Your task to perform on an android device: Open eBay Image 0: 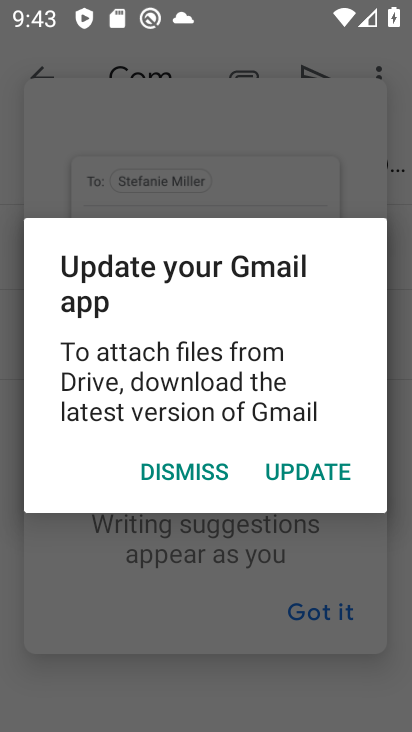
Step 0: press home button
Your task to perform on an android device: Open eBay Image 1: 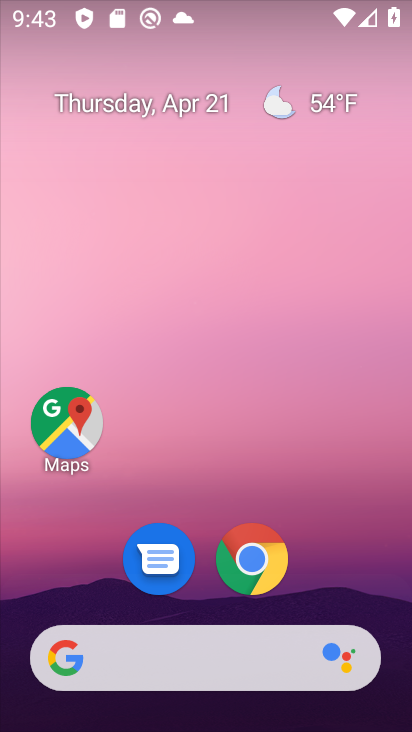
Step 1: click (254, 566)
Your task to perform on an android device: Open eBay Image 2: 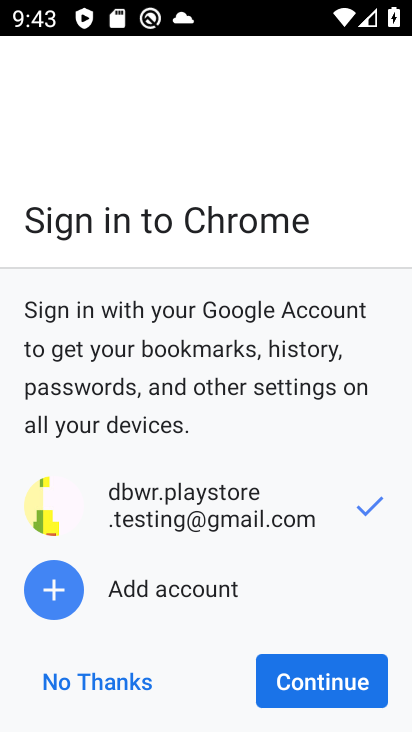
Step 2: click (327, 674)
Your task to perform on an android device: Open eBay Image 3: 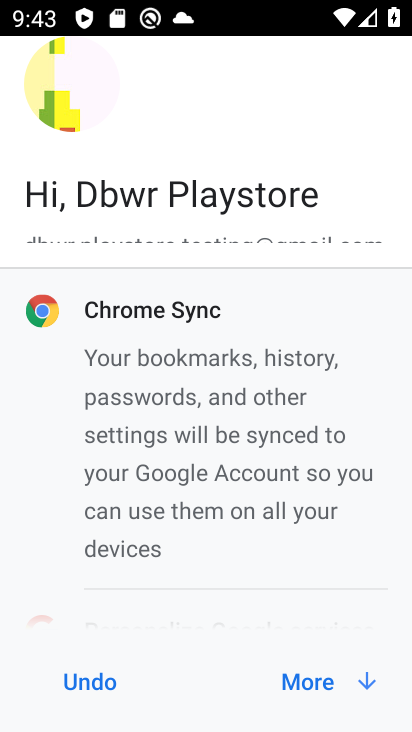
Step 3: click (330, 686)
Your task to perform on an android device: Open eBay Image 4: 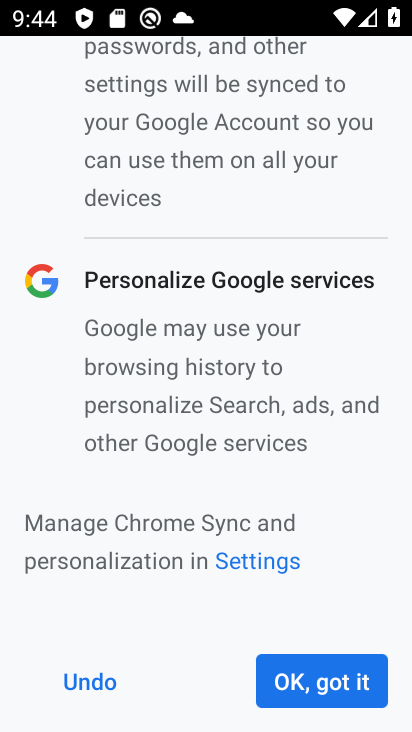
Step 4: click (339, 688)
Your task to perform on an android device: Open eBay Image 5: 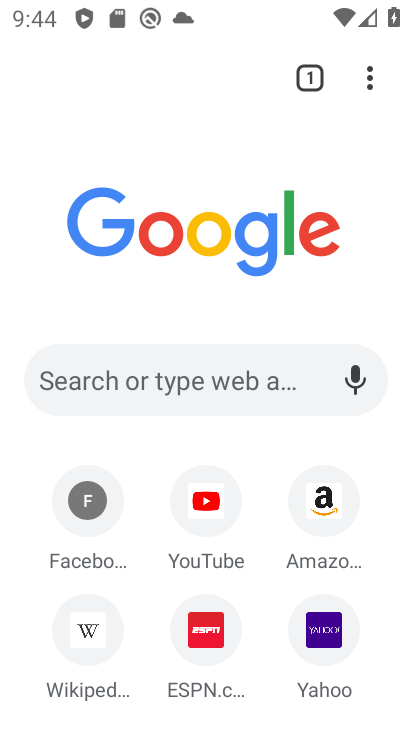
Step 5: click (176, 373)
Your task to perform on an android device: Open eBay Image 6: 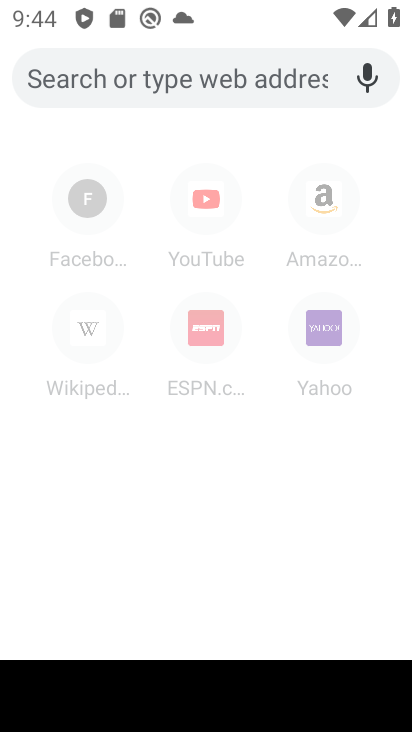
Step 6: type "ebay"
Your task to perform on an android device: Open eBay Image 7: 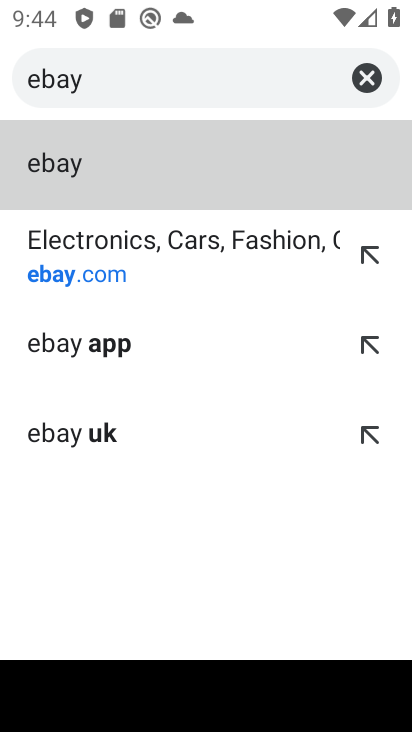
Step 7: click (72, 160)
Your task to perform on an android device: Open eBay Image 8: 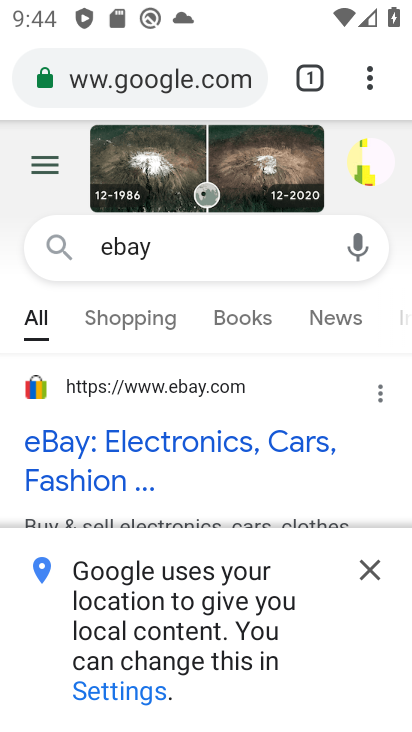
Step 8: task complete